Your task to perform on an android device: turn on data saver in the chrome app Image 0: 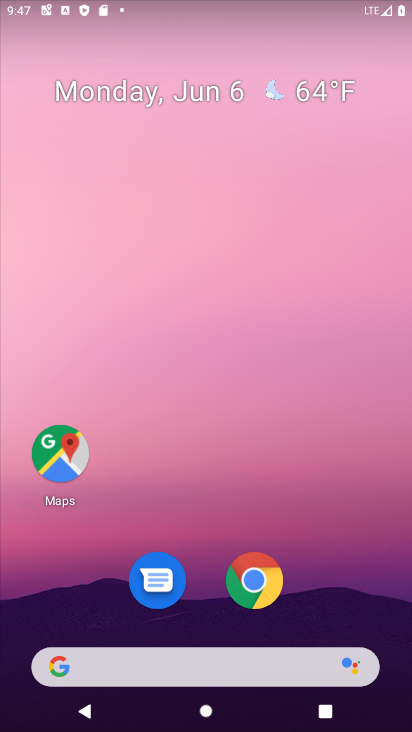
Step 0: drag from (336, 511) to (243, 0)
Your task to perform on an android device: turn on data saver in the chrome app Image 1: 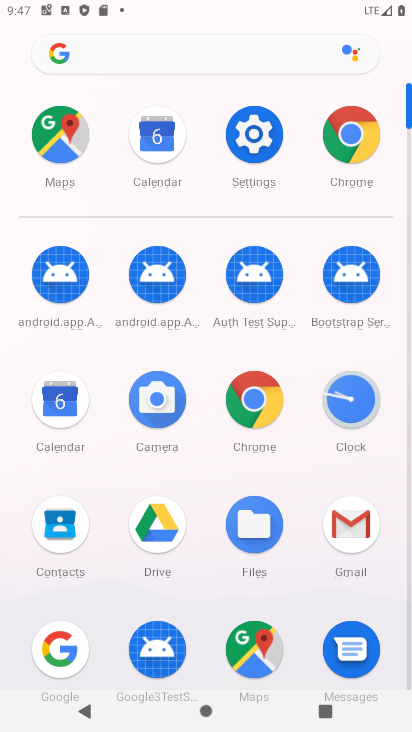
Step 1: click (351, 142)
Your task to perform on an android device: turn on data saver in the chrome app Image 2: 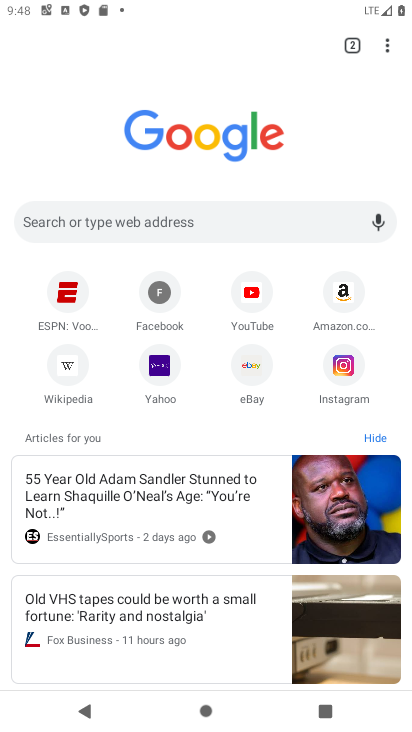
Step 2: drag from (388, 49) to (222, 389)
Your task to perform on an android device: turn on data saver in the chrome app Image 3: 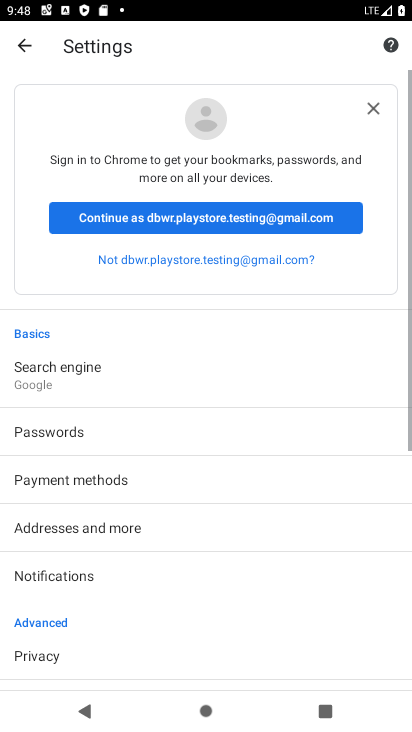
Step 3: drag from (177, 626) to (239, 178)
Your task to perform on an android device: turn on data saver in the chrome app Image 4: 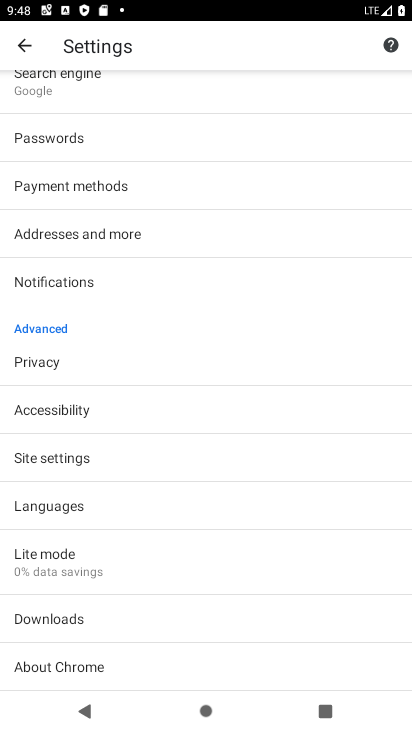
Step 4: click (89, 562)
Your task to perform on an android device: turn on data saver in the chrome app Image 5: 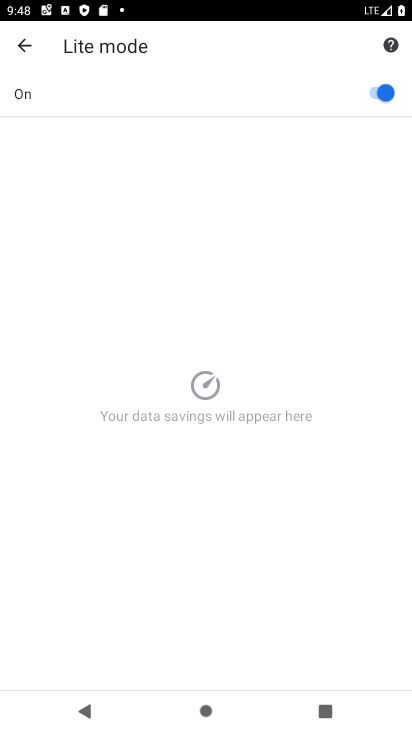
Step 5: task complete